Your task to perform on an android device: Open the phone app and click the voicemail tab. Image 0: 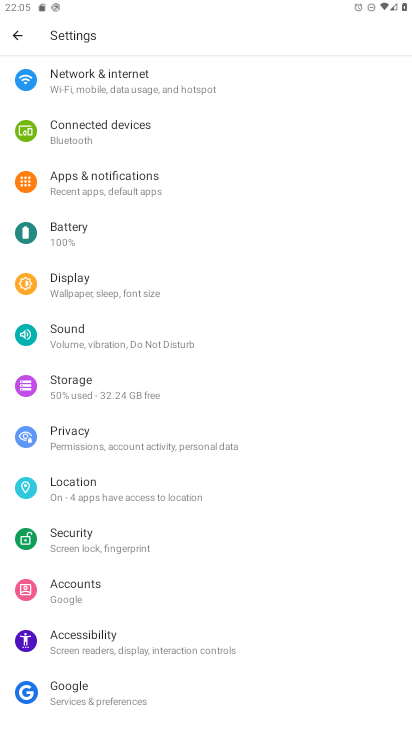
Step 0: press home button
Your task to perform on an android device: Open the phone app and click the voicemail tab. Image 1: 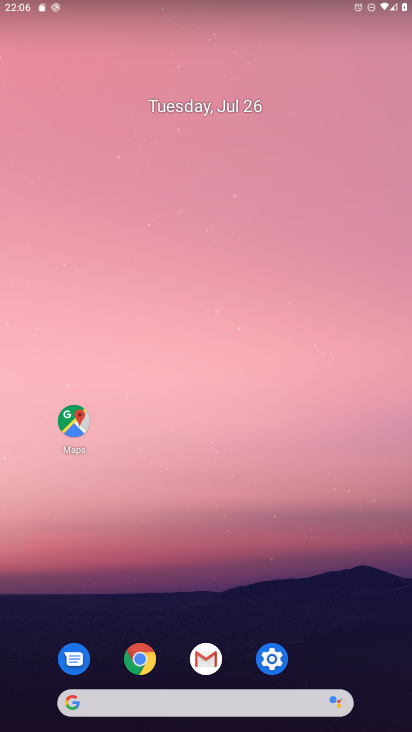
Step 1: drag from (253, 718) to (273, 188)
Your task to perform on an android device: Open the phone app and click the voicemail tab. Image 2: 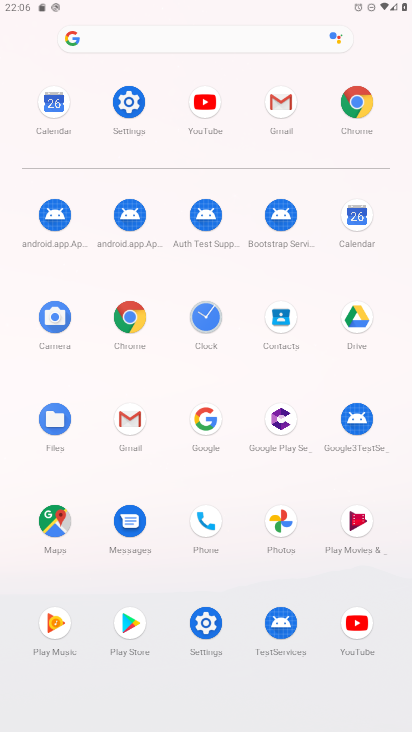
Step 2: click (208, 517)
Your task to perform on an android device: Open the phone app and click the voicemail tab. Image 3: 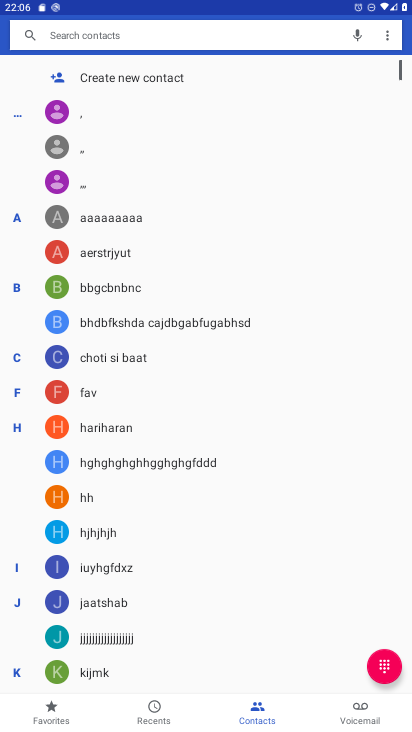
Step 3: click (361, 710)
Your task to perform on an android device: Open the phone app and click the voicemail tab. Image 4: 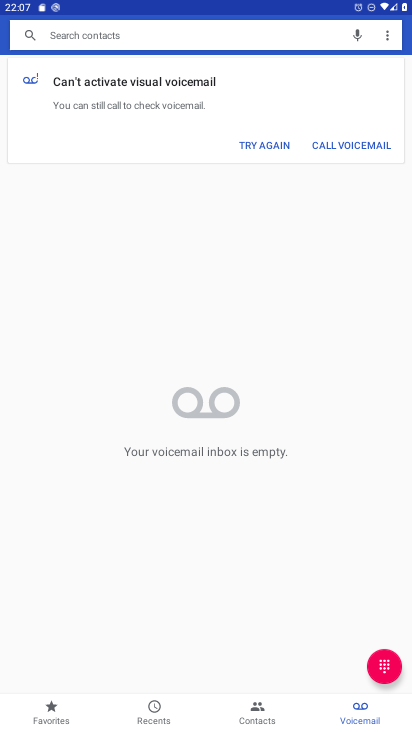
Step 4: task complete